Your task to perform on an android device: Open CNN.com Image 0: 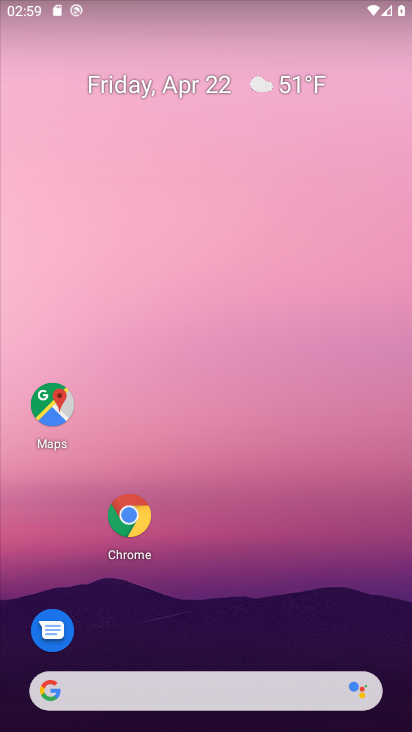
Step 0: click (125, 511)
Your task to perform on an android device: Open CNN.com Image 1: 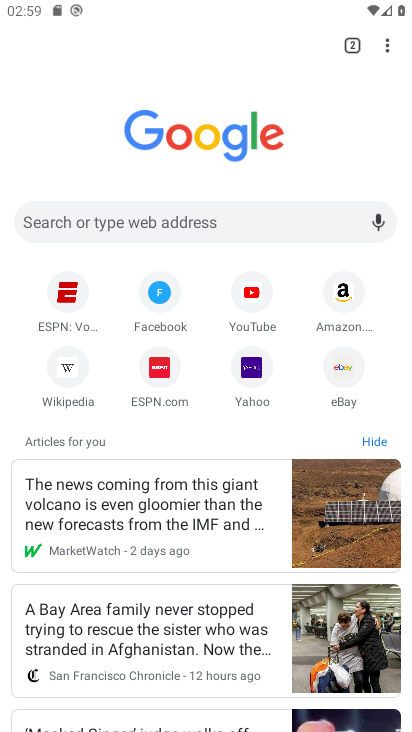
Step 1: click (180, 210)
Your task to perform on an android device: Open CNN.com Image 2: 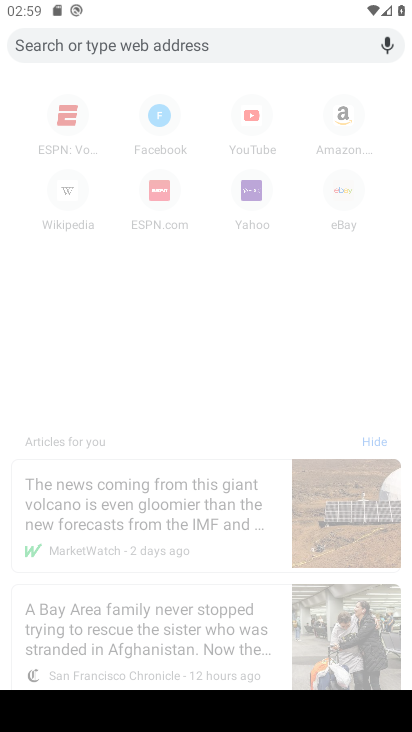
Step 2: type "CNN.com"
Your task to perform on an android device: Open CNN.com Image 3: 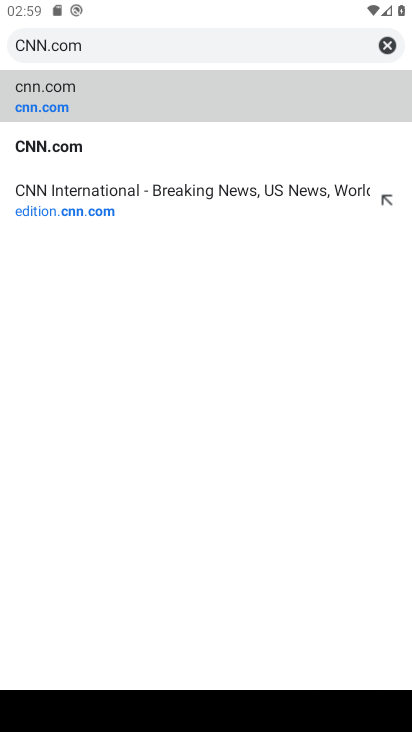
Step 3: click (44, 151)
Your task to perform on an android device: Open CNN.com Image 4: 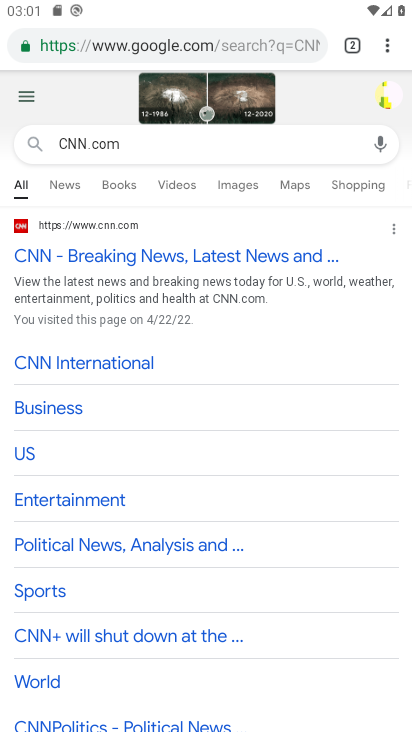
Step 4: task complete